Your task to perform on an android device: Search for pizza restaurants on Maps Image 0: 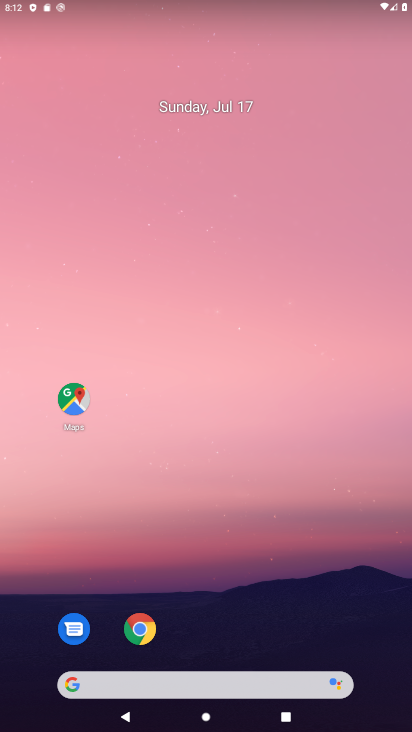
Step 0: drag from (232, 675) to (229, 131)
Your task to perform on an android device: Search for pizza restaurants on Maps Image 1: 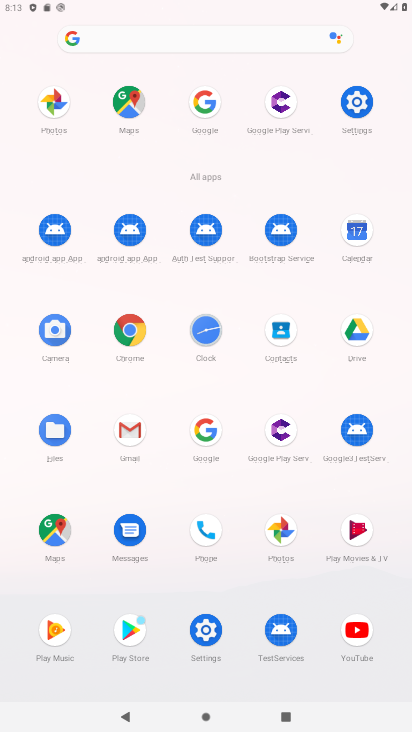
Step 1: click (50, 527)
Your task to perform on an android device: Search for pizza restaurants on Maps Image 2: 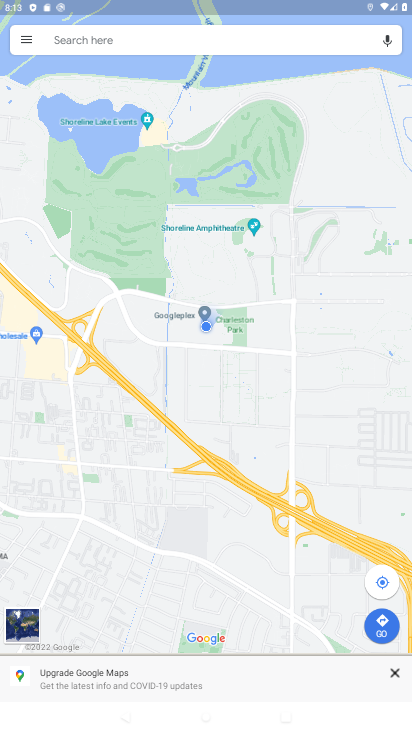
Step 2: click (189, 38)
Your task to perform on an android device: Search for pizza restaurants on Maps Image 3: 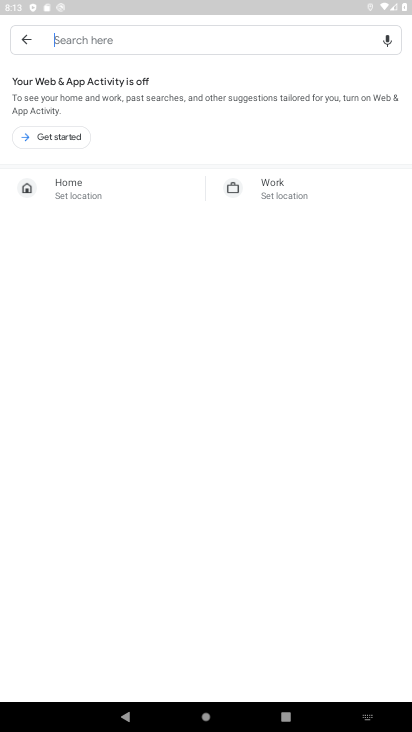
Step 3: type "Pizza Restaurants"
Your task to perform on an android device: Search for pizza restaurants on Maps Image 4: 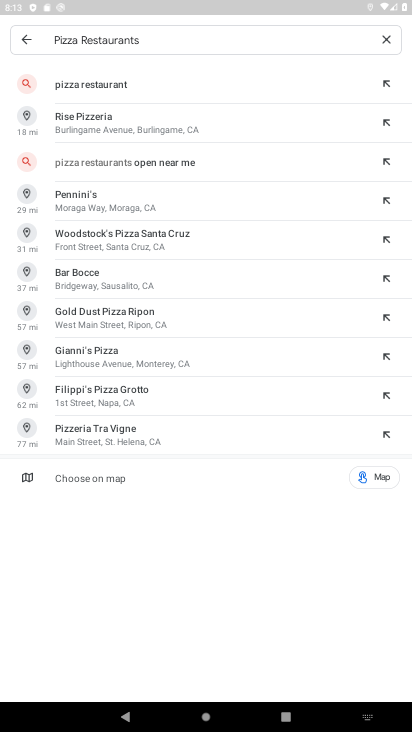
Step 4: click (115, 80)
Your task to perform on an android device: Search for pizza restaurants on Maps Image 5: 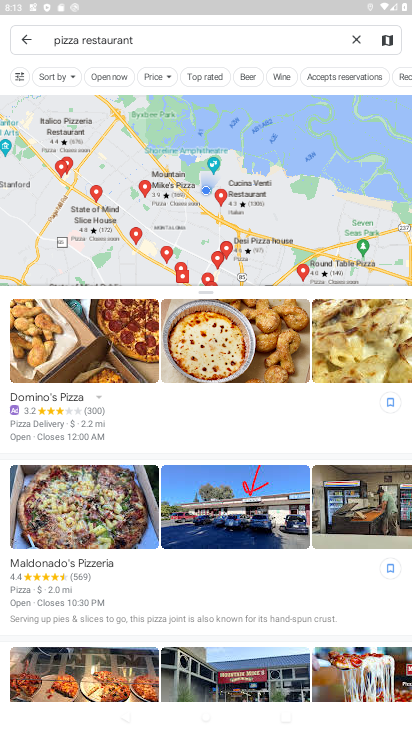
Step 5: task complete